Your task to perform on an android device: Search for Italian restaurants on Maps Image 0: 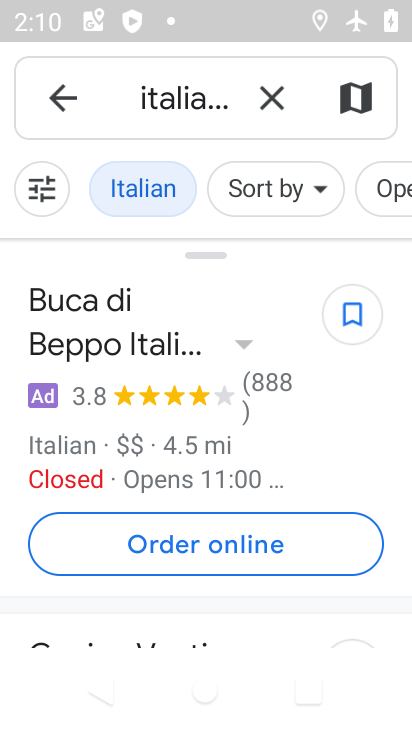
Step 0: click (219, 93)
Your task to perform on an android device: Search for Italian restaurants on Maps Image 1: 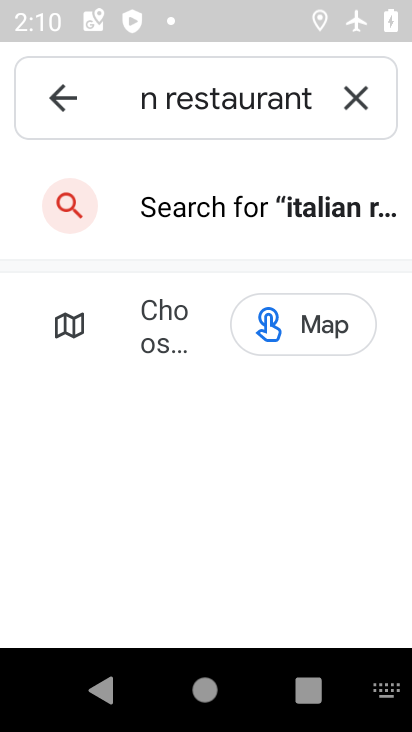
Step 1: click (293, 218)
Your task to perform on an android device: Search for Italian restaurants on Maps Image 2: 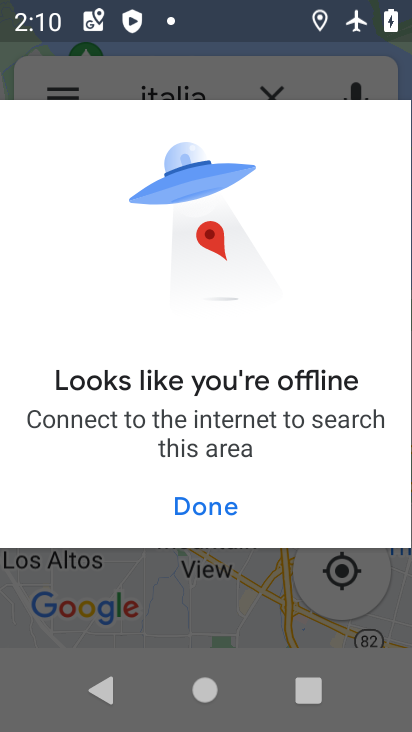
Step 2: task complete